Your task to perform on an android device: change keyboard looks Image 0: 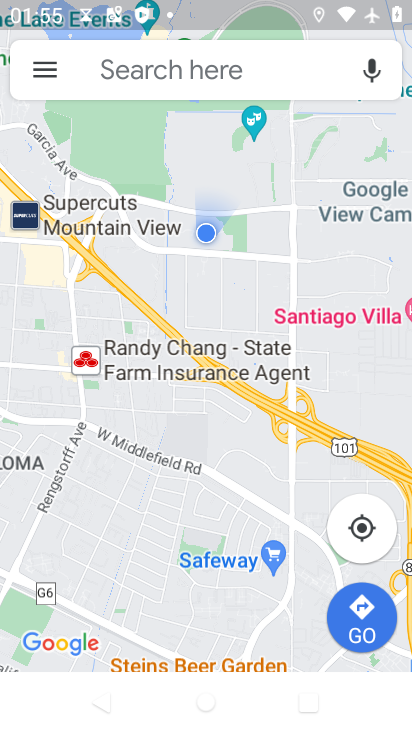
Step 0: press home button
Your task to perform on an android device: change keyboard looks Image 1: 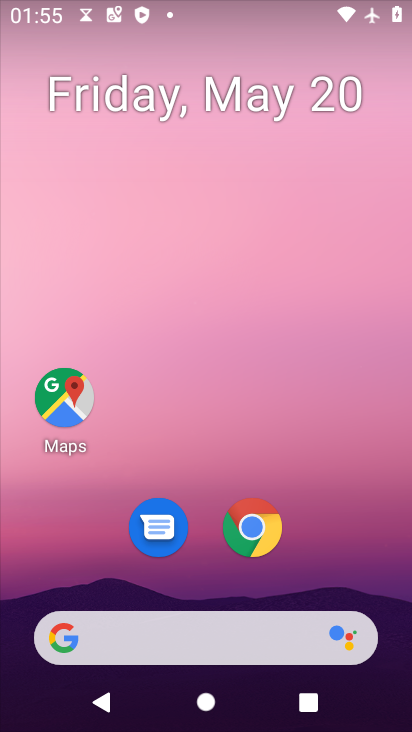
Step 1: drag from (152, 642) to (265, 207)
Your task to perform on an android device: change keyboard looks Image 2: 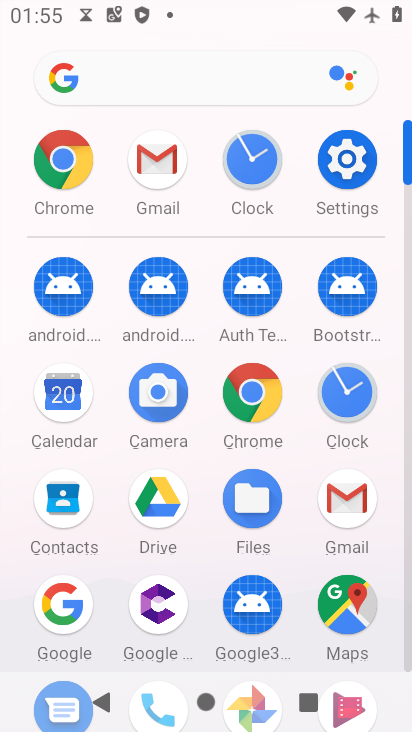
Step 2: click (336, 162)
Your task to perform on an android device: change keyboard looks Image 3: 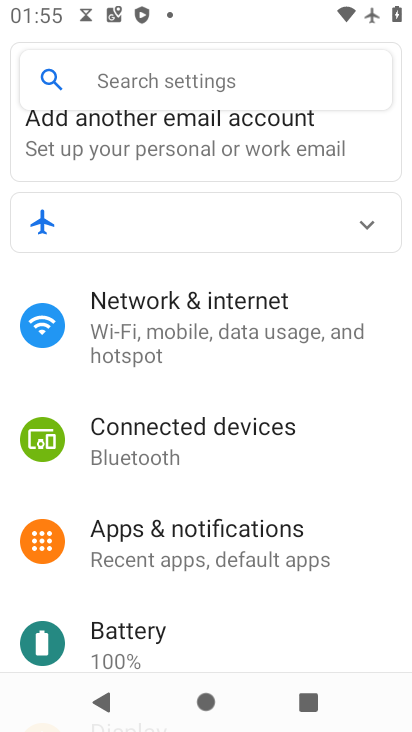
Step 3: drag from (265, 639) to (337, 62)
Your task to perform on an android device: change keyboard looks Image 4: 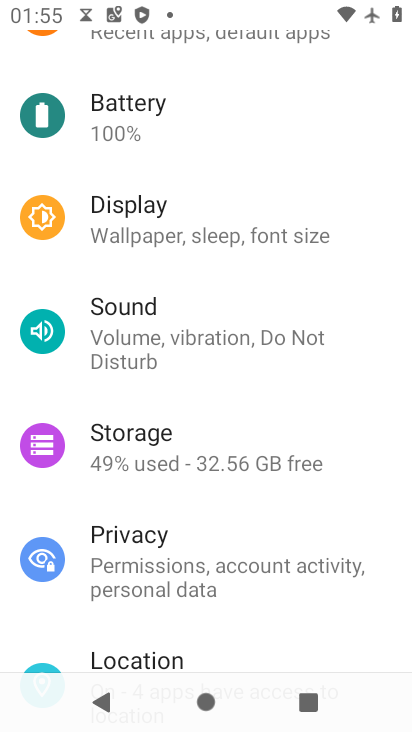
Step 4: drag from (251, 637) to (283, 153)
Your task to perform on an android device: change keyboard looks Image 5: 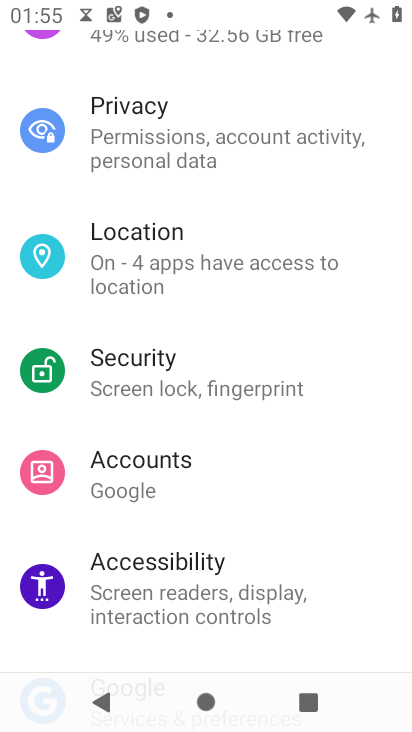
Step 5: drag from (288, 492) to (342, 199)
Your task to perform on an android device: change keyboard looks Image 6: 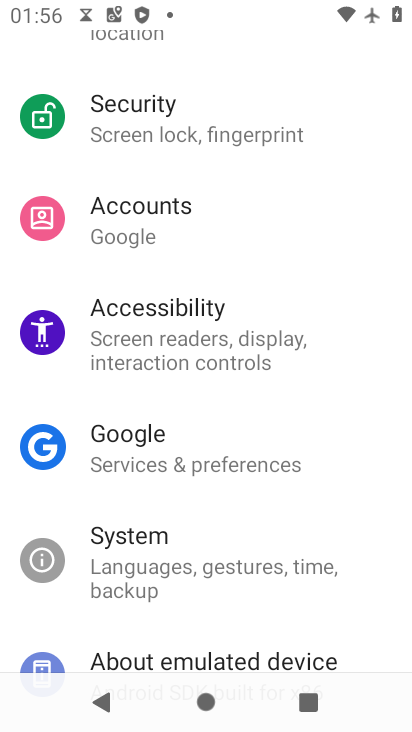
Step 6: click (175, 571)
Your task to perform on an android device: change keyboard looks Image 7: 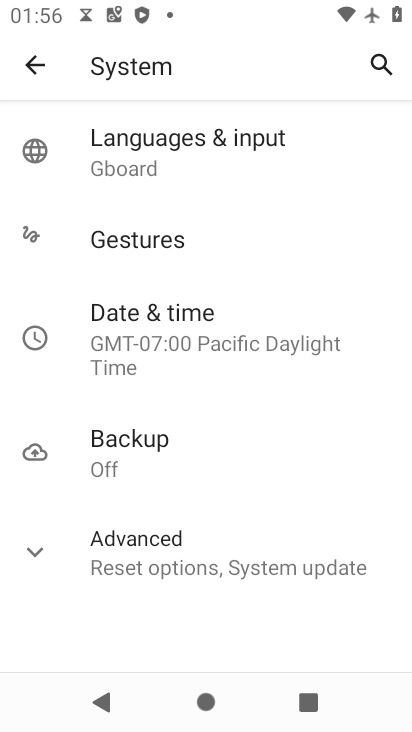
Step 7: click (170, 157)
Your task to perform on an android device: change keyboard looks Image 8: 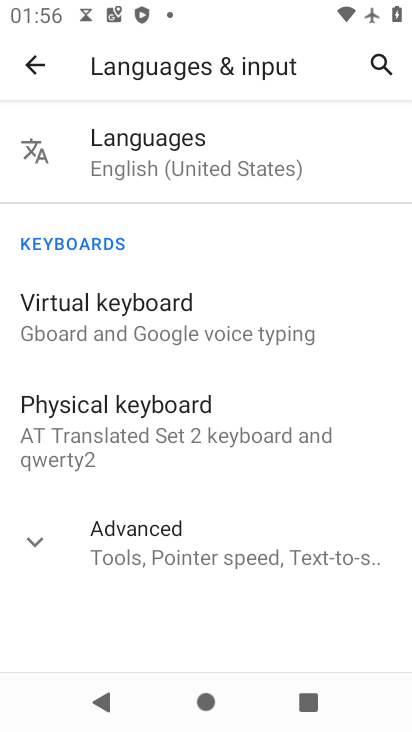
Step 8: click (145, 320)
Your task to perform on an android device: change keyboard looks Image 9: 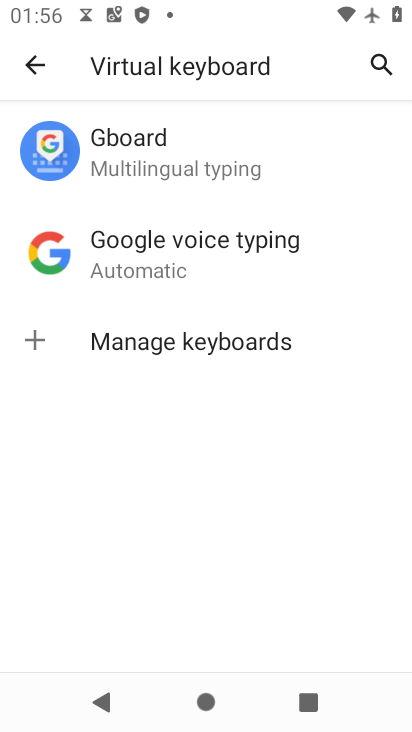
Step 9: click (162, 161)
Your task to perform on an android device: change keyboard looks Image 10: 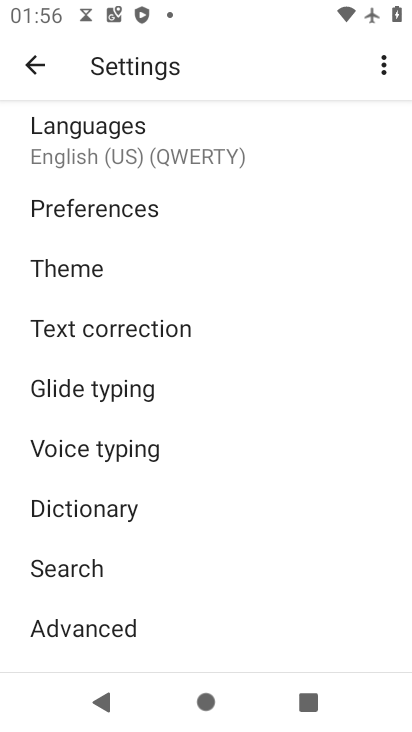
Step 10: click (83, 273)
Your task to perform on an android device: change keyboard looks Image 11: 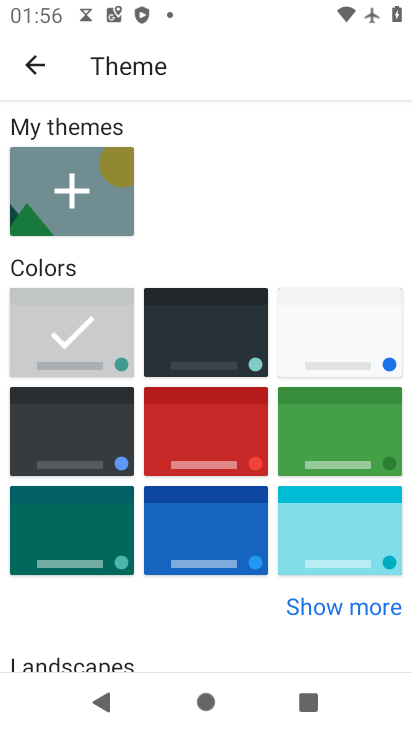
Step 11: click (222, 531)
Your task to perform on an android device: change keyboard looks Image 12: 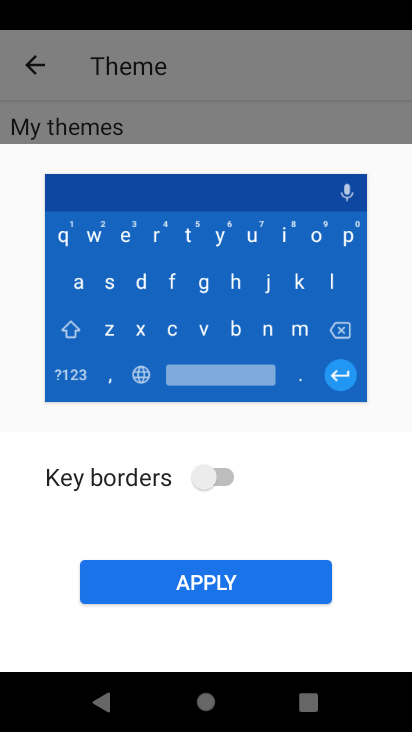
Step 12: click (214, 583)
Your task to perform on an android device: change keyboard looks Image 13: 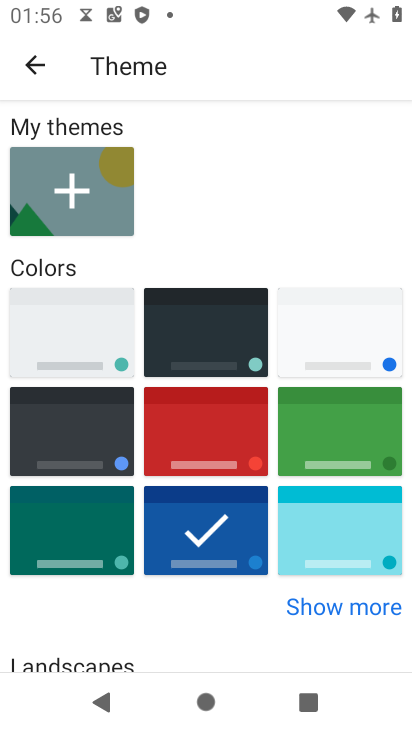
Step 13: task complete